Your task to perform on an android device: toggle improve location accuracy Image 0: 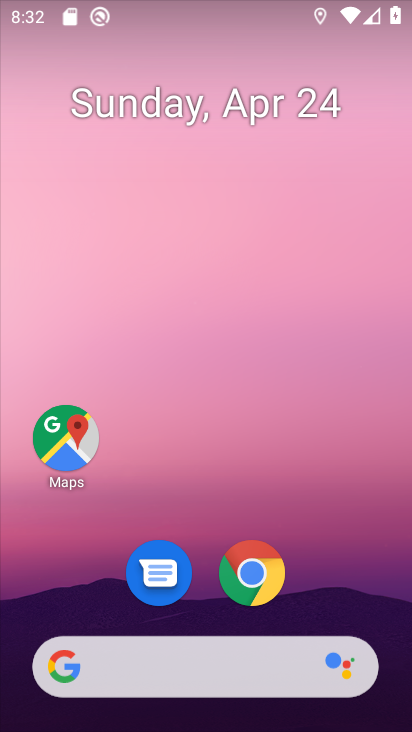
Step 0: drag from (204, 596) to (119, 25)
Your task to perform on an android device: toggle improve location accuracy Image 1: 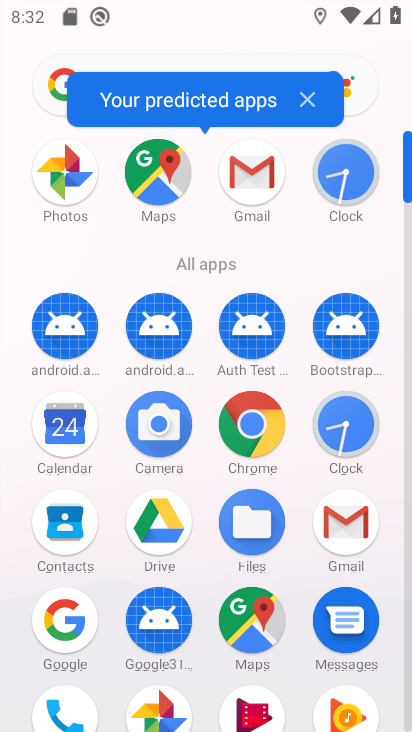
Step 1: drag from (216, 573) to (197, 276)
Your task to perform on an android device: toggle improve location accuracy Image 2: 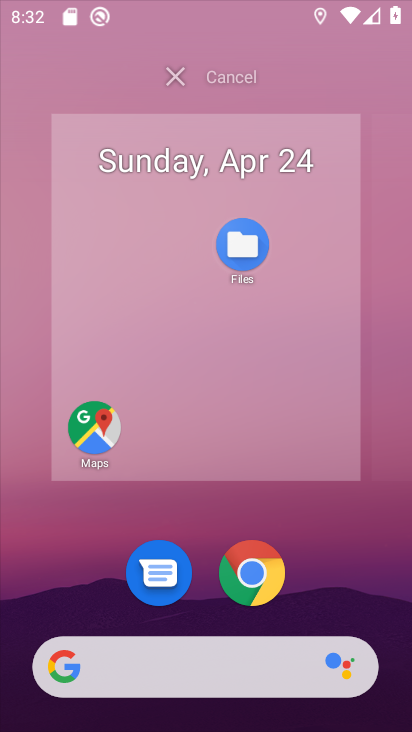
Step 2: drag from (209, 568) to (283, 10)
Your task to perform on an android device: toggle improve location accuracy Image 3: 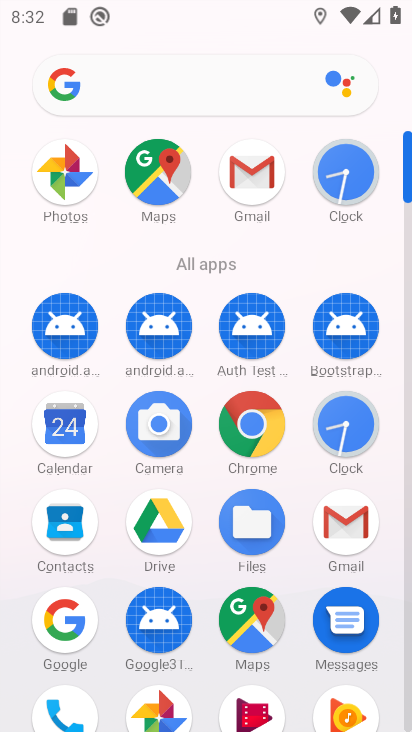
Step 3: drag from (209, 651) to (190, 244)
Your task to perform on an android device: toggle improve location accuracy Image 4: 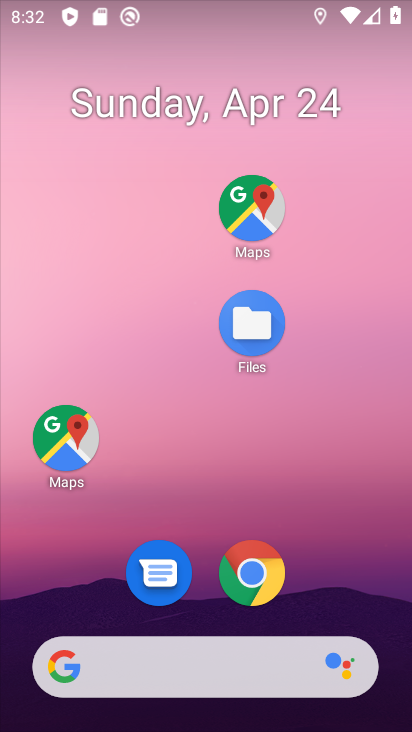
Step 4: drag from (190, 641) to (308, 18)
Your task to perform on an android device: toggle improve location accuracy Image 5: 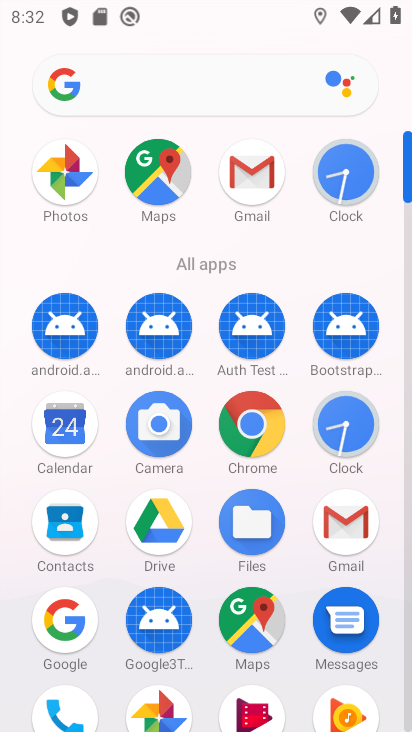
Step 5: drag from (383, 686) to (336, 139)
Your task to perform on an android device: toggle improve location accuracy Image 6: 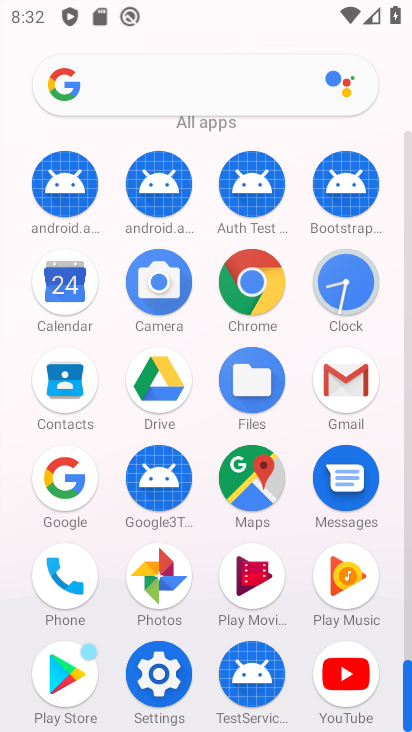
Step 6: click (165, 649)
Your task to perform on an android device: toggle improve location accuracy Image 7: 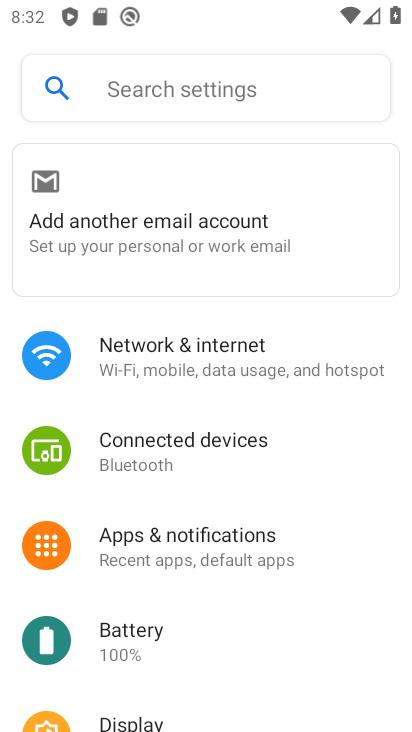
Step 7: drag from (238, 623) to (192, 223)
Your task to perform on an android device: toggle improve location accuracy Image 8: 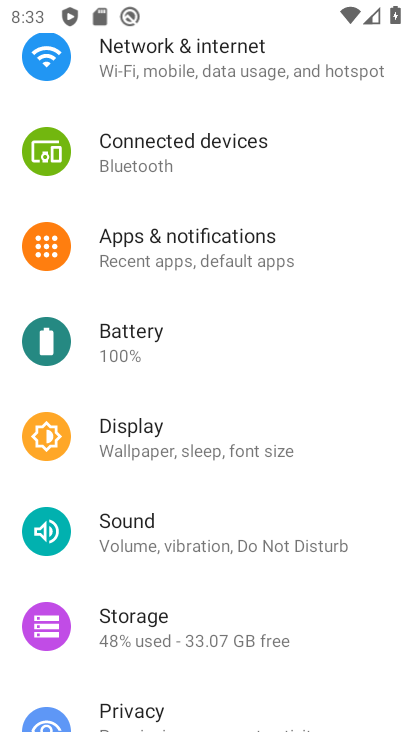
Step 8: drag from (204, 594) to (154, 116)
Your task to perform on an android device: toggle improve location accuracy Image 9: 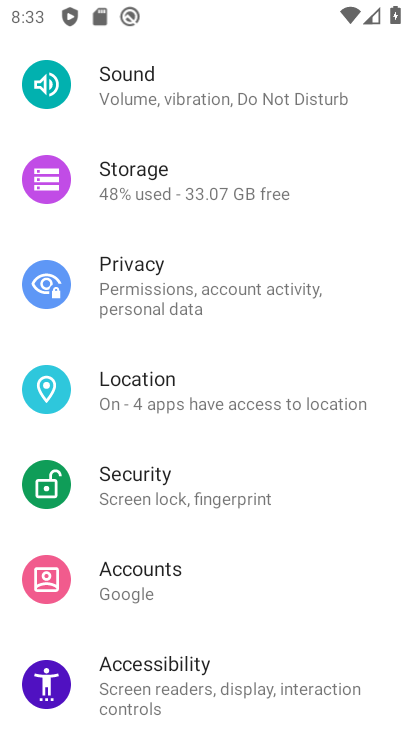
Step 9: click (154, 410)
Your task to perform on an android device: toggle improve location accuracy Image 10: 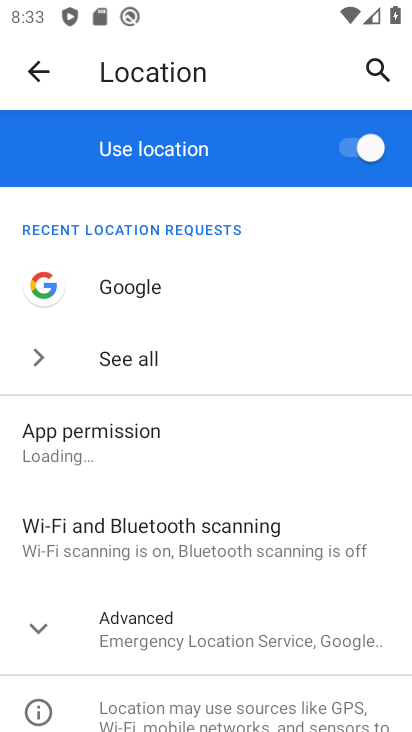
Step 10: click (116, 613)
Your task to perform on an android device: toggle improve location accuracy Image 11: 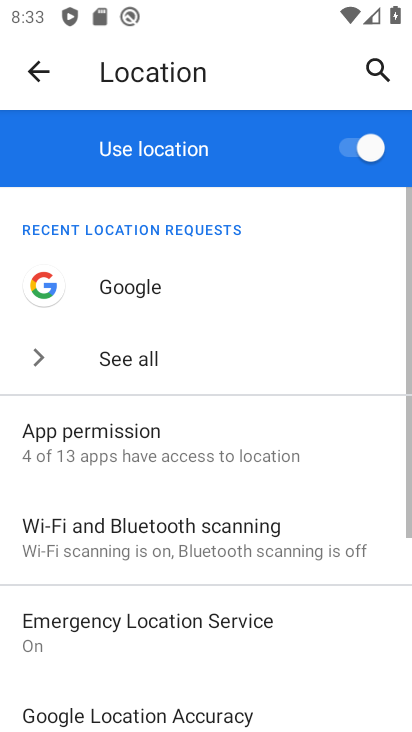
Step 11: click (203, 689)
Your task to perform on an android device: toggle improve location accuracy Image 12: 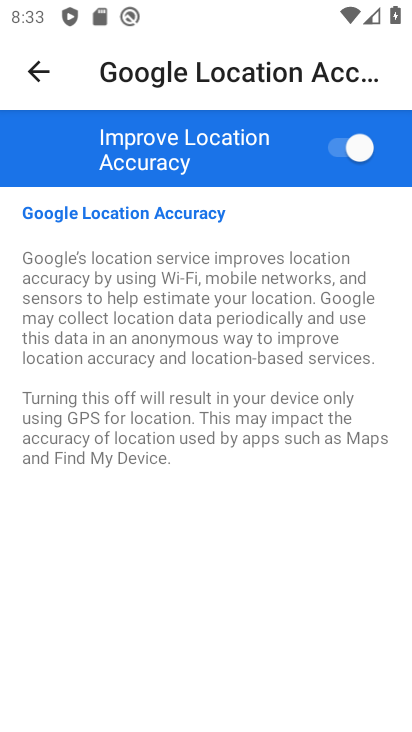
Step 12: click (345, 157)
Your task to perform on an android device: toggle improve location accuracy Image 13: 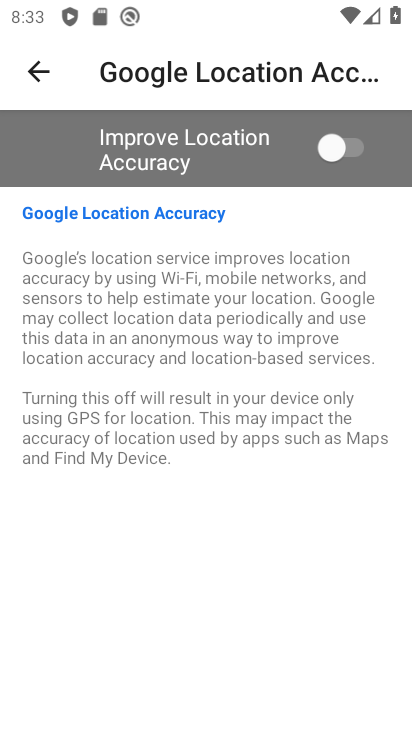
Step 13: task complete